Your task to perform on an android device: show emergency info Image 0: 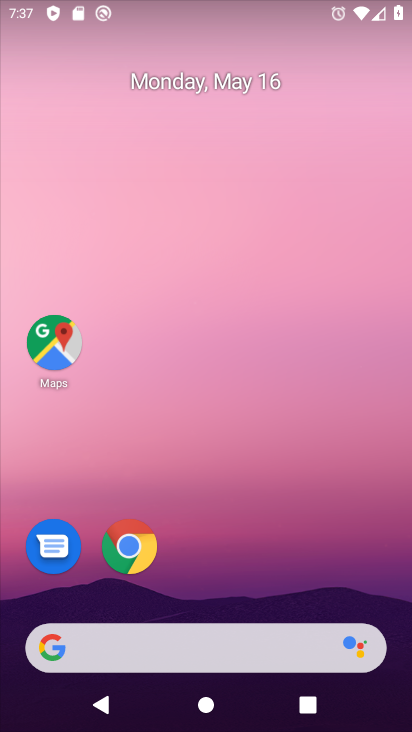
Step 0: drag from (200, 606) to (242, 231)
Your task to perform on an android device: show emergency info Image 1: 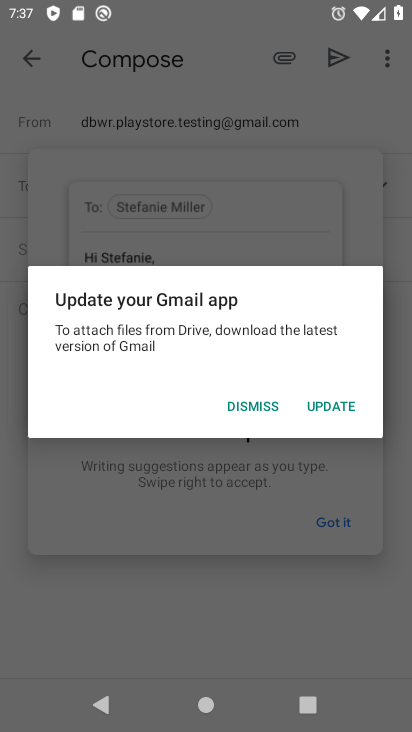
Step 1: press home button
Your task to perform on an android device: show emergency info Image 2: 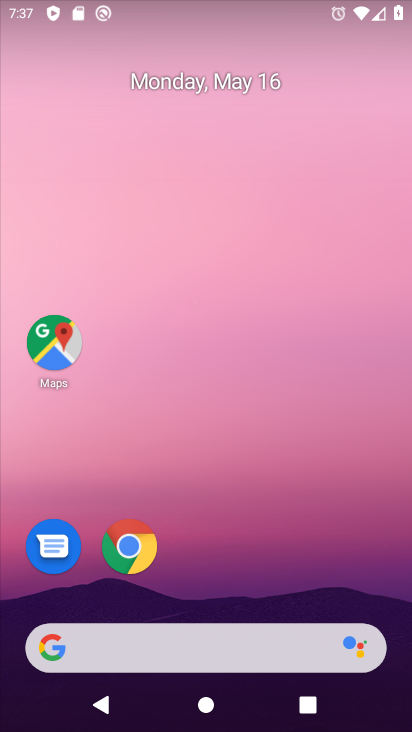
Step 2: drag from (205, 560) to (242, 2)
Your task to perform on an android device: show emergency info Image 3: 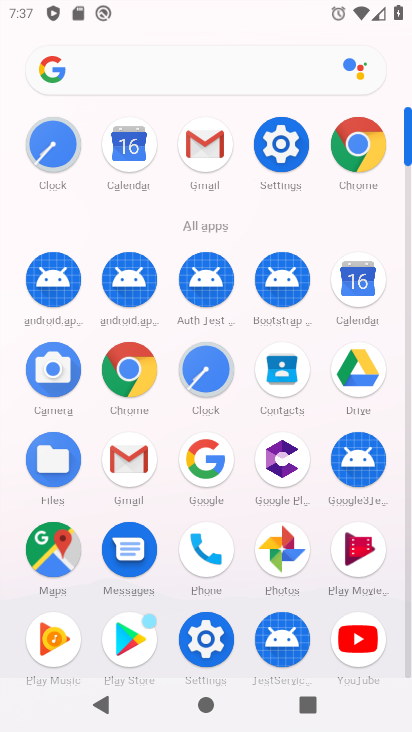
Step 3: click (274, 183)
Your task to perform on an android device: show emergency info Image 4: 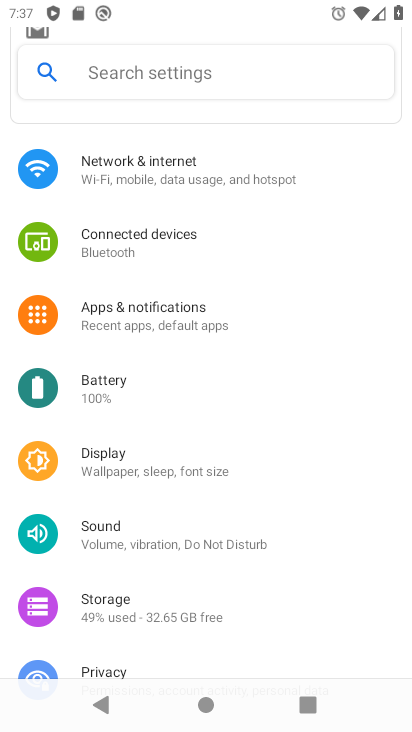
Step 4: drag from (164, 588) to (172, 215)
Your task to perform on an android device: show emergency info Image 5: 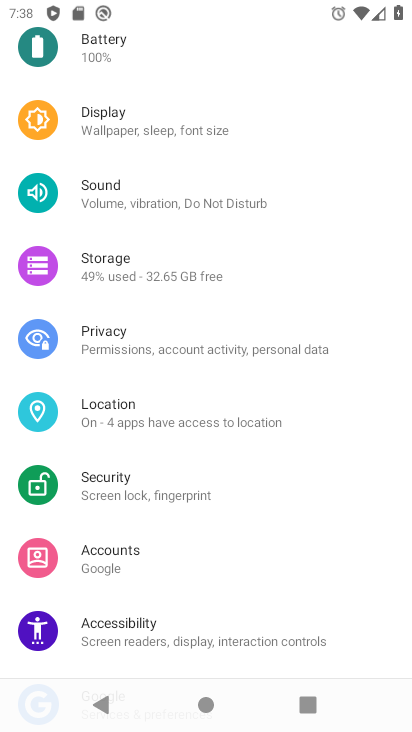
Step 5: drag from (215, 603) to (287, 310)
Your task to perform on an android device: show emergency info Image 6: 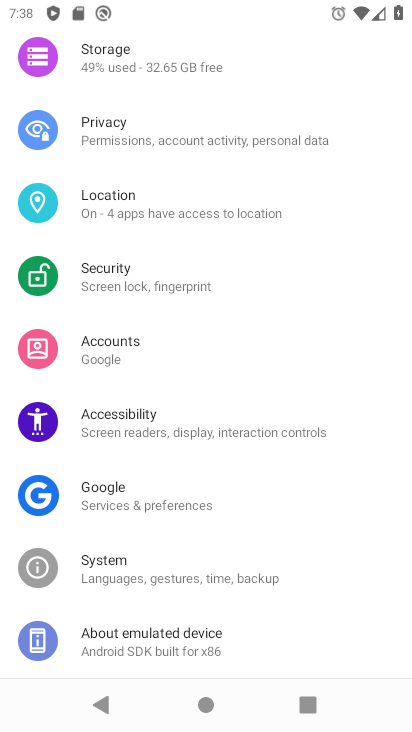
Step 6: click (158, 615)
Your task to perform on an android device: show emergency info Image 7: 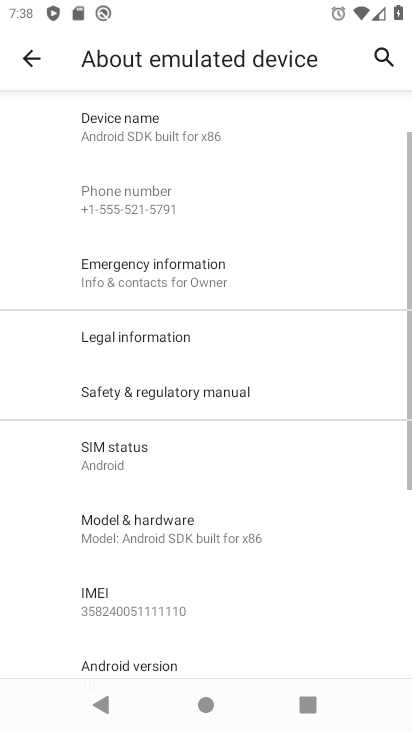
Step 7: click (180, 261)
Your task to perform on an android device: show emergency info Image 8: 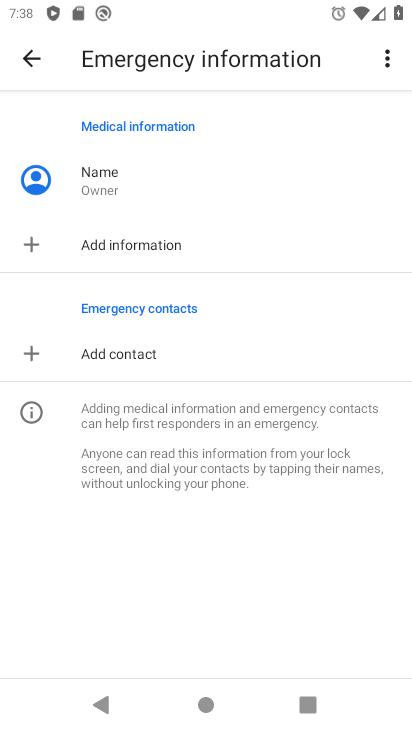
Step 8: task complete